Your task to perform on an android device: Open Wikipedia Image 0: 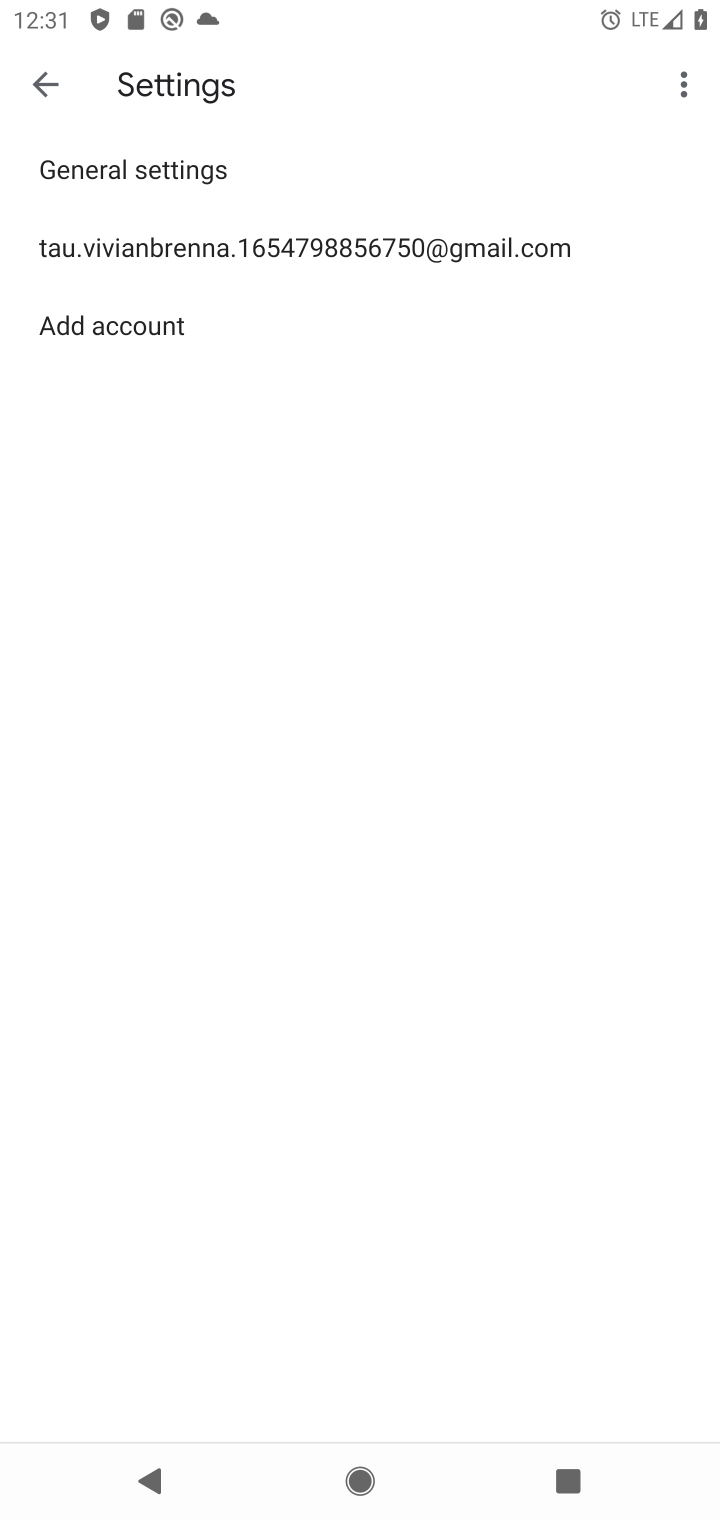
Step 0: press home button
Your task to perform on an android device: Open Wikipedia Image 1: 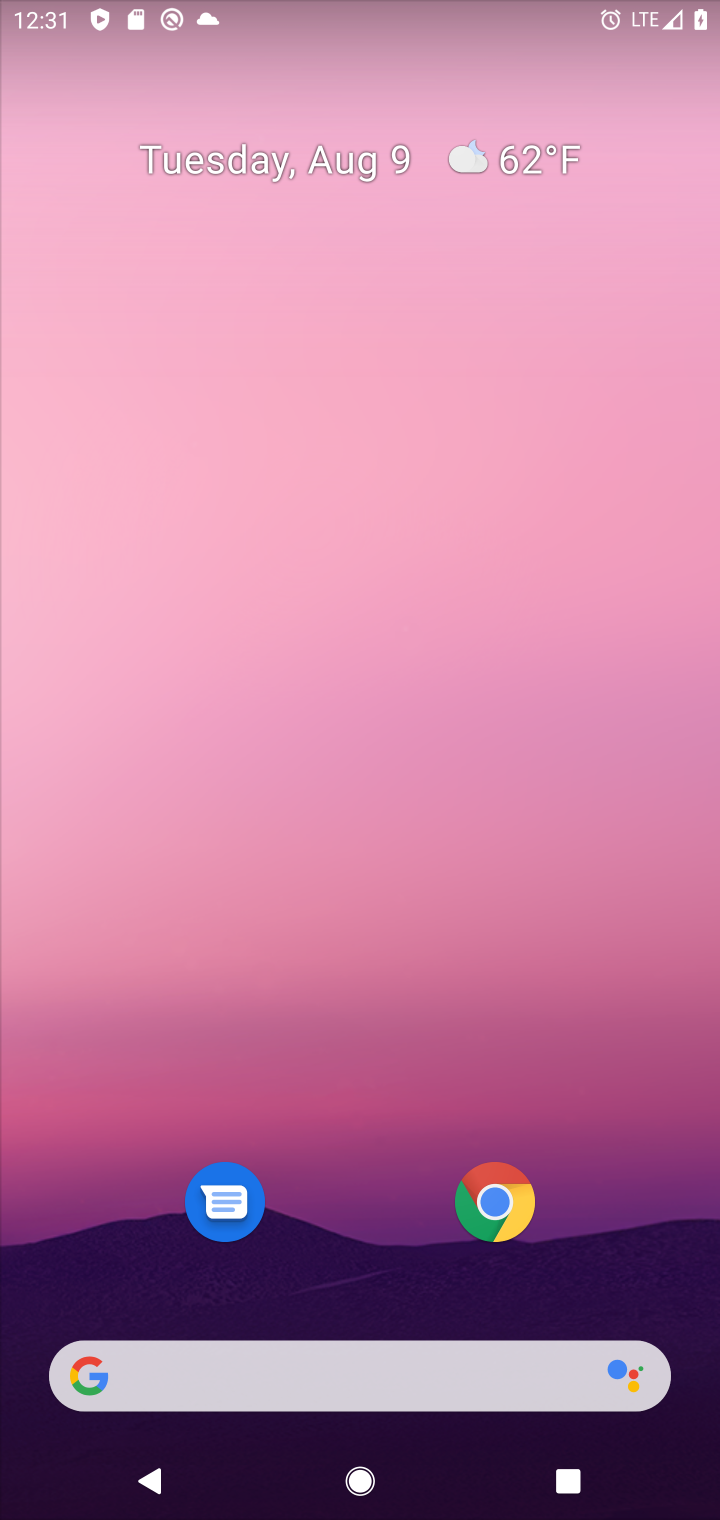
Step 1: click (483, 1196)
Your task to perform on an android device: Open Wikipedia Image 2: 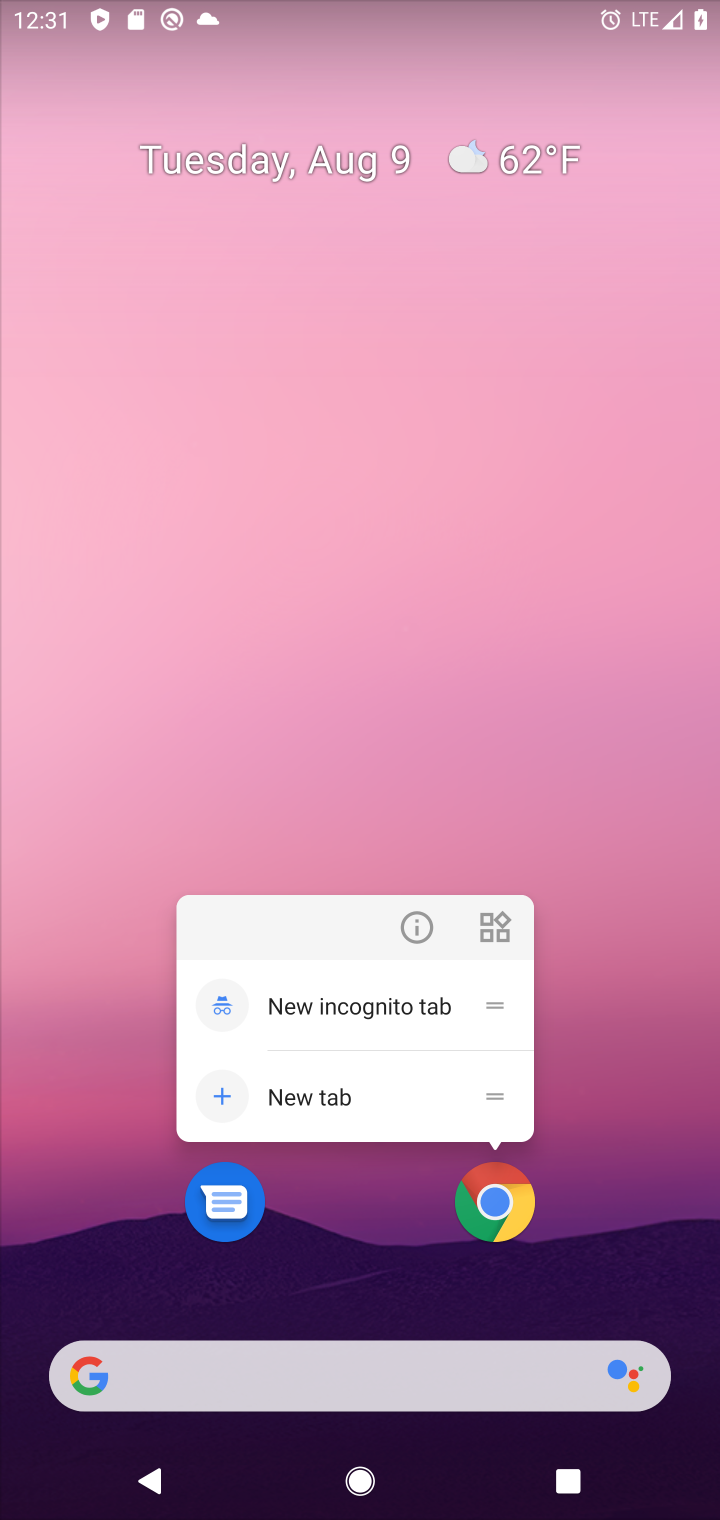
Step 2: click (490, 1199)
Your task to perform on an android device: Open Wikipedia Image 3: 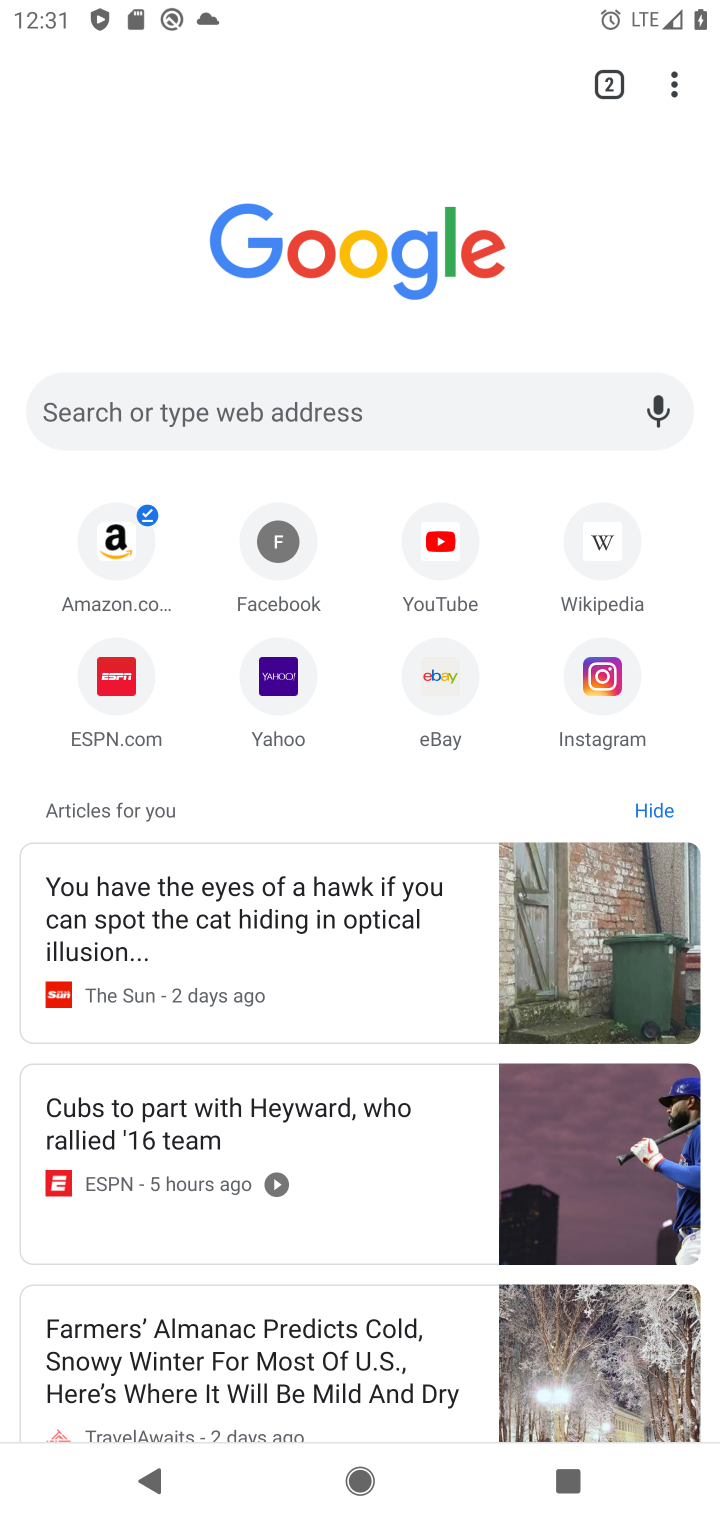
Step 3: click (601, 548)
Your task to perform on an android device: Open Wikipedia Image 4: 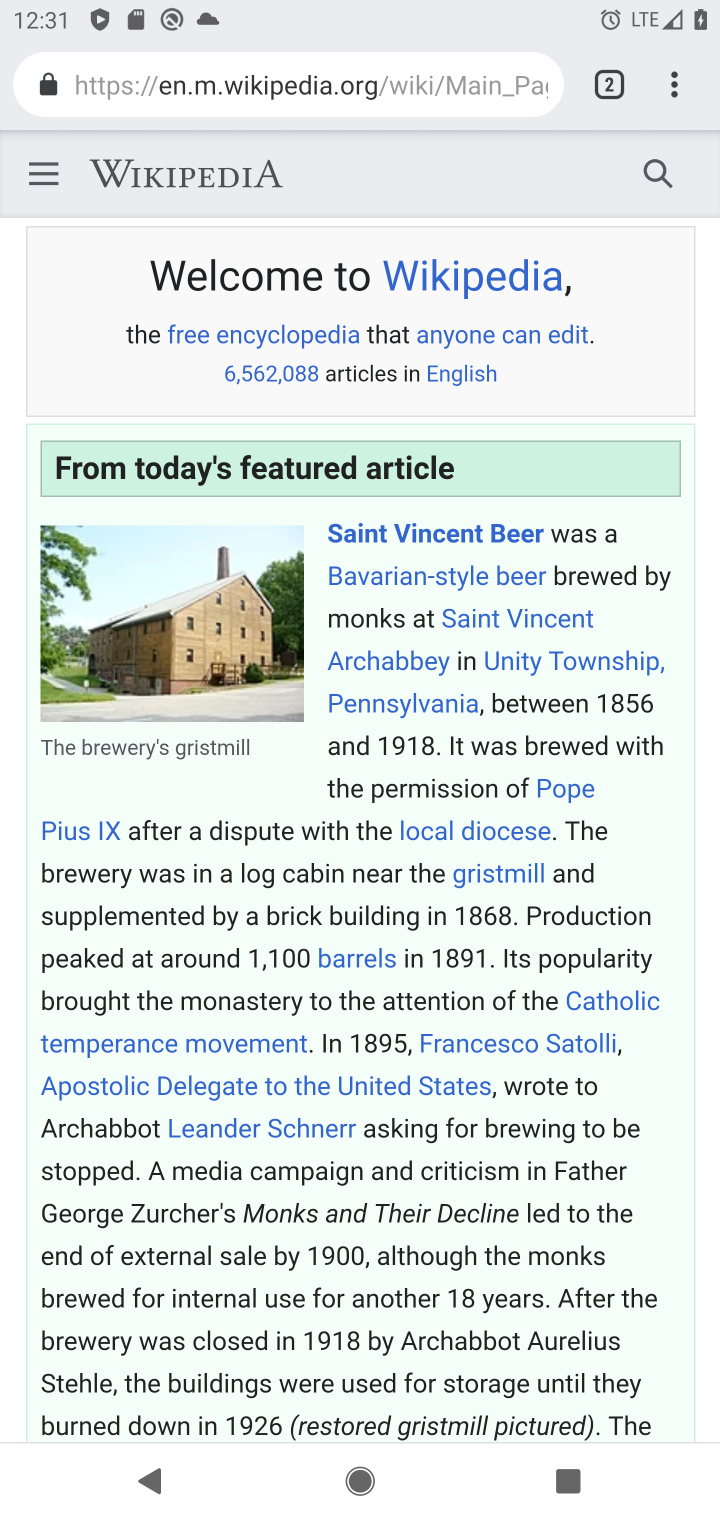
Step 4: task complete